Your task to perform on an android device: Go to Wikipedia Image 0: 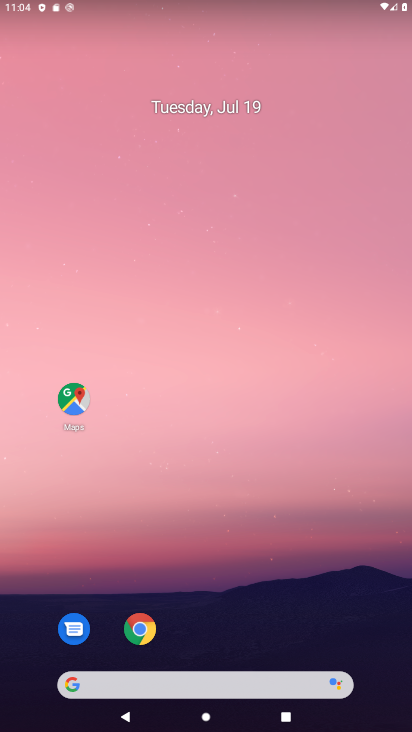
Step 0: click (138, 635)
Your task to perform on an android device: Go to Wikipedia Image 1: 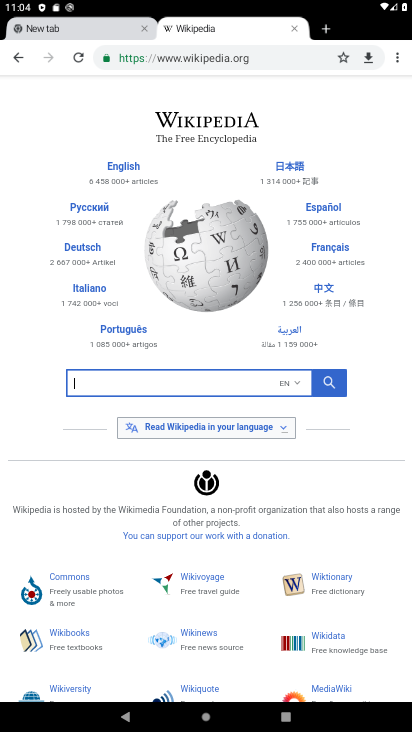
Step 1: click (291, 56)
Your task to perform on an android device: Go to Wikipedia Image 2: 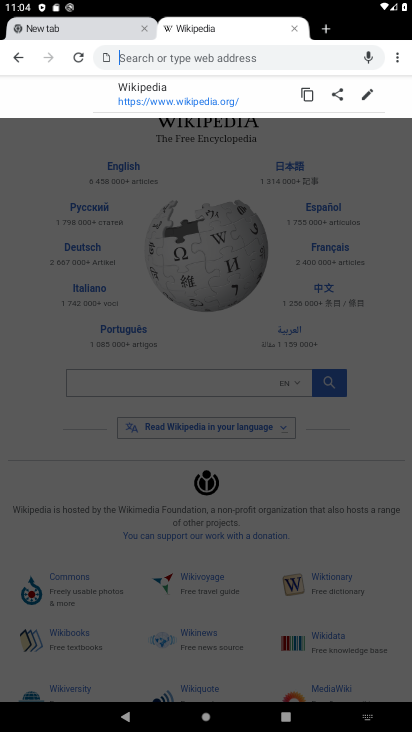
Step 2: type "Wikipedia"
Your task to perform on an android device: Go to Wikipedia Image 3: 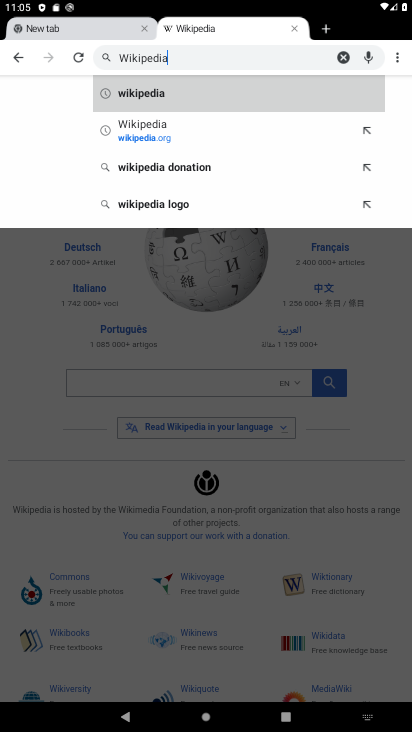
Step 3: click (145, 93)
Your task to perform on an android device: Go to Wikipedia Image 4: 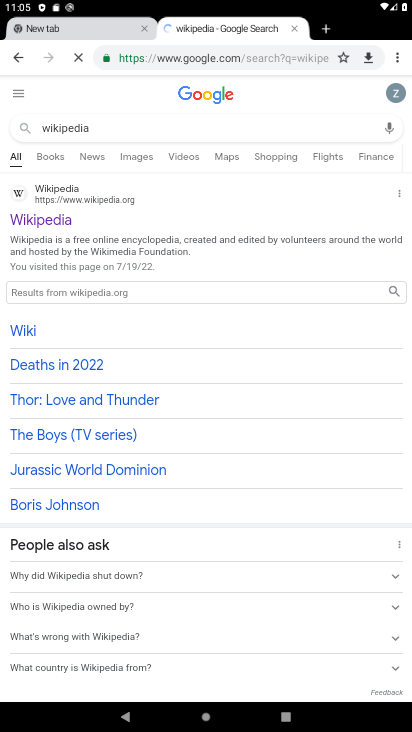
Step 4: task complete